Your task to perform on an android device: change the clock display to analog Image 0: 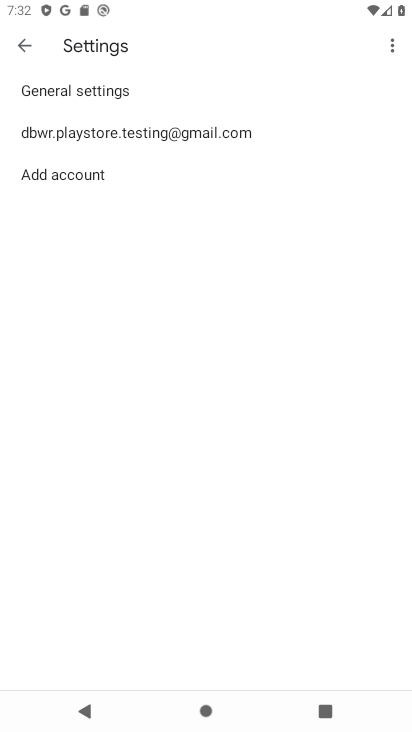
Step 0: press home button
Your task to perform on an android device: change the clock display to analog Image 1: 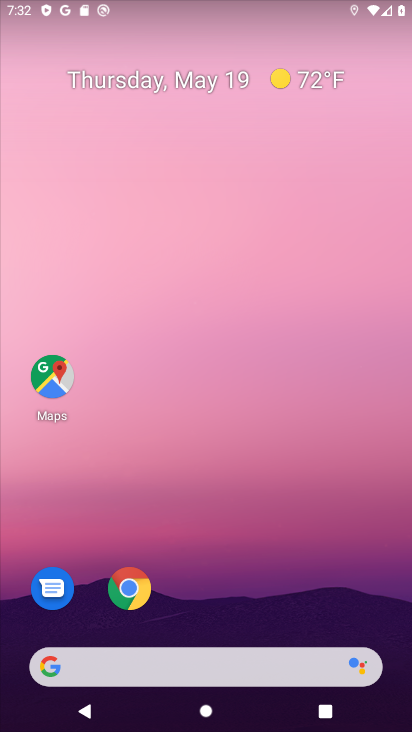
Step 1: drag from (299, 599) to (333, 26)
Your task to perform on an android device: change the clock display to analog Image 2: 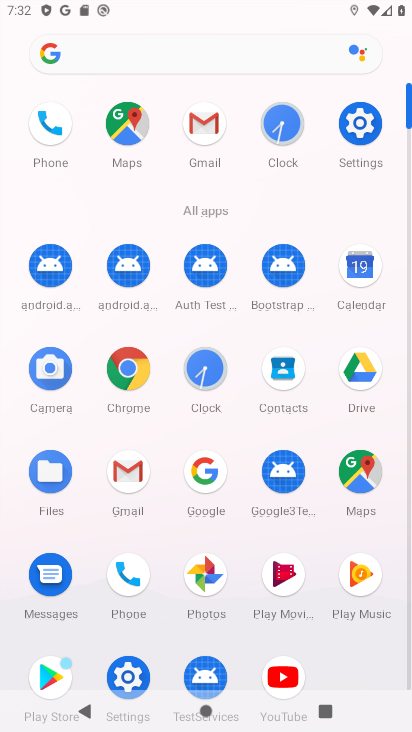
Step 2: click (198, 376)
Your task to perform on an android device: change the clock display to analog Image 3: 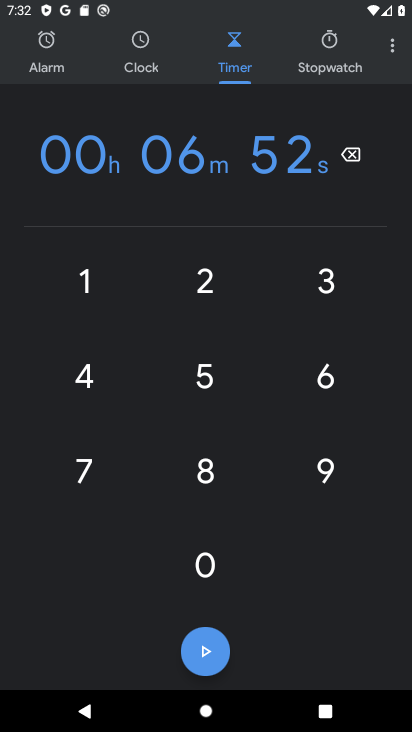
Step 3: click (401, 50)
Your task to perform on an android device: change the clock display to analog Image 4: 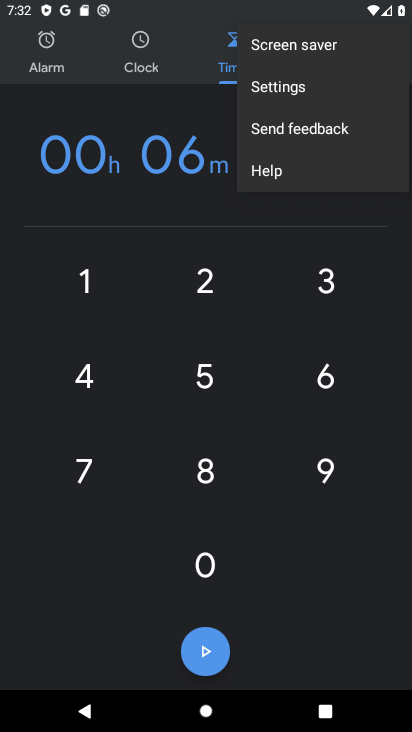
Step 4: click (296, 92)
Your task to perform on an android device: change the clock display to analog Image 5: 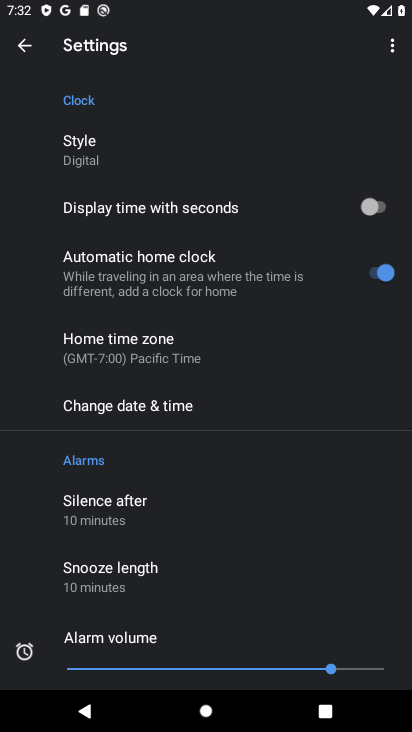
Step 5: click (172, 153)
Your task to perform on an android device: change the clock display to analog Image 6: 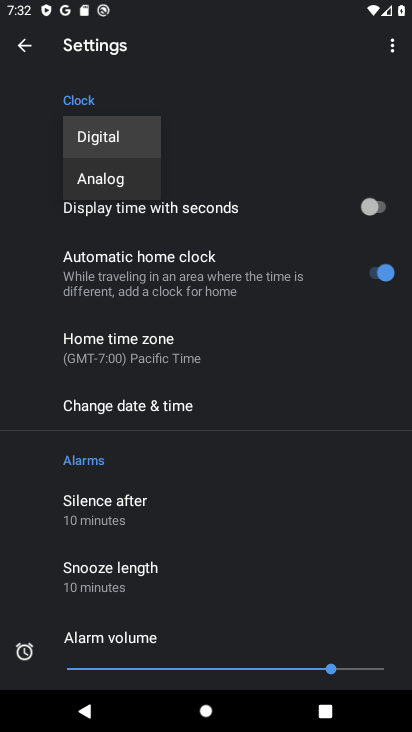
Step 6: click (117, 183)
Your task to perform on an android device: change the clock display to analog Image 7: 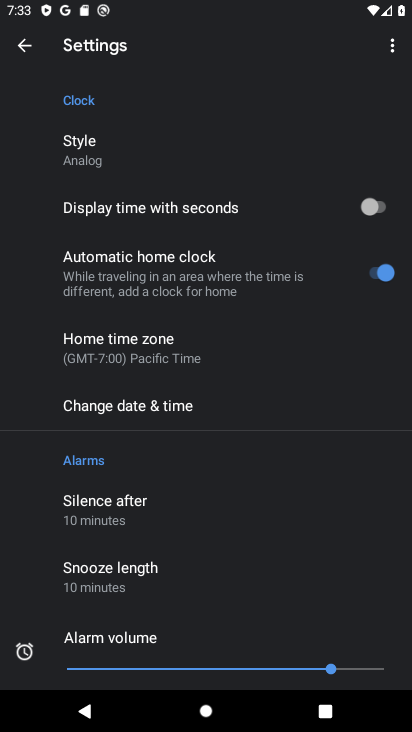
Step 7: task complete